Your task to perform on an android device: turn pop-ups off in chrome Image 0: 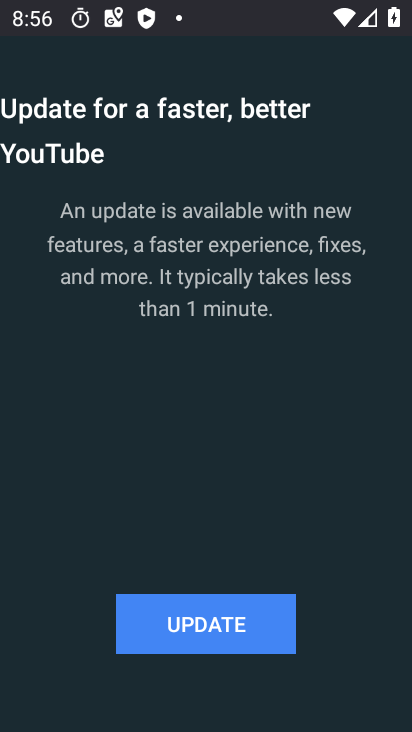
Step 0: press home button
Your task to perform on an android device: turn pop-ups off in chrome Image 1: 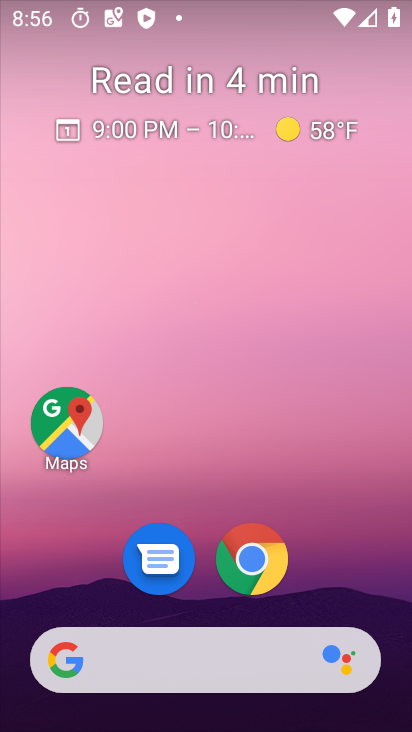
Step 1: click (251, 555)
Your task to perform on an android device: turn pop-ups off in chrome Image 2: 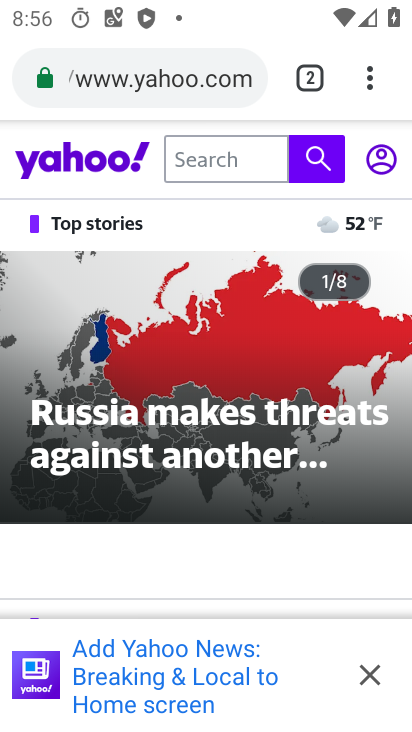
Step 2: click (371, 81)
Your task to perform on an android device: turn pop-ups off in chrome Image 3: 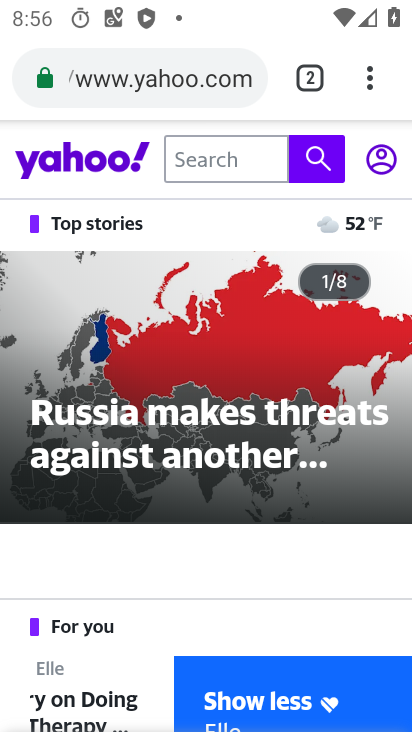
Step 3: click (368, 75)
Your task to perform on an android device: turn pop-ups off in chrome Image 4: 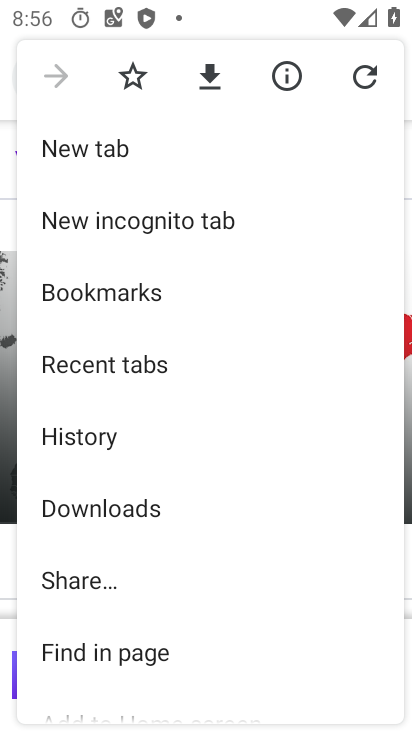
Step 4: drag from (159, 541) to (196, 445)
Your task to perform on an android device: turn pop-ups off in chrome Image 5: 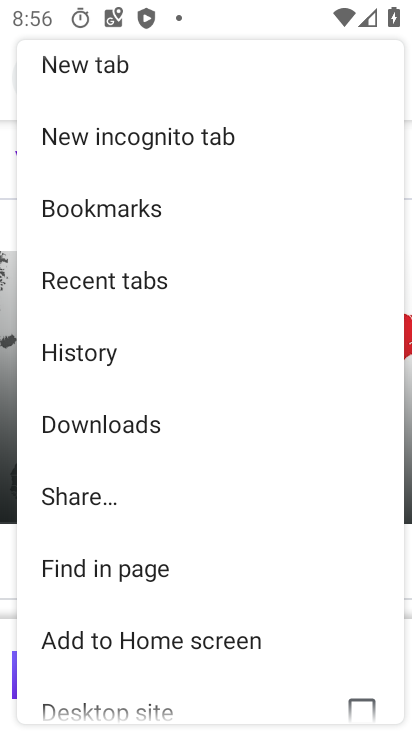
Step 5: drag from (158, 535) to (197, 429)
Your task to perform on an android device: turn pop-ups off in chrome Image 6: 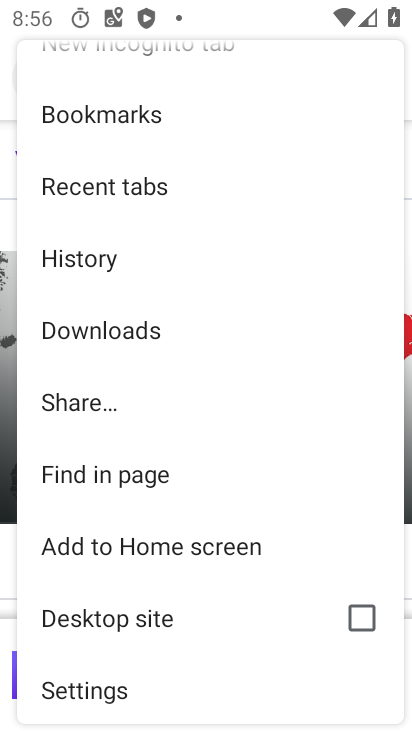
Step 6: drag from (156, 569) to (231, 444)
Your task to perform on an android device: turn pop-ups off in chrome Image 7: 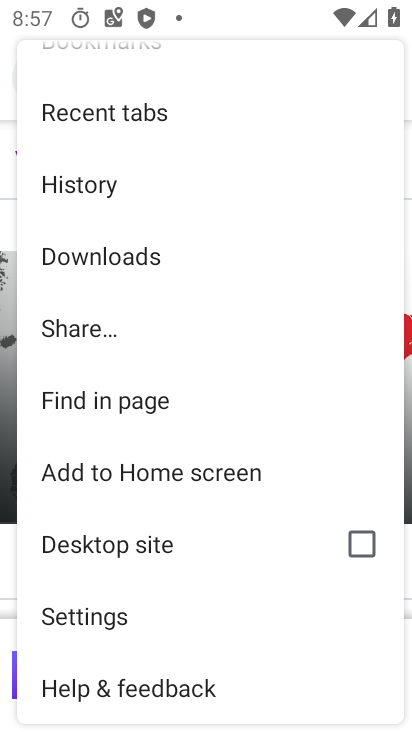
Step 7: click (90, 626)
Your task to perform on an android device: turn pop-ups off in chrome Image 8: 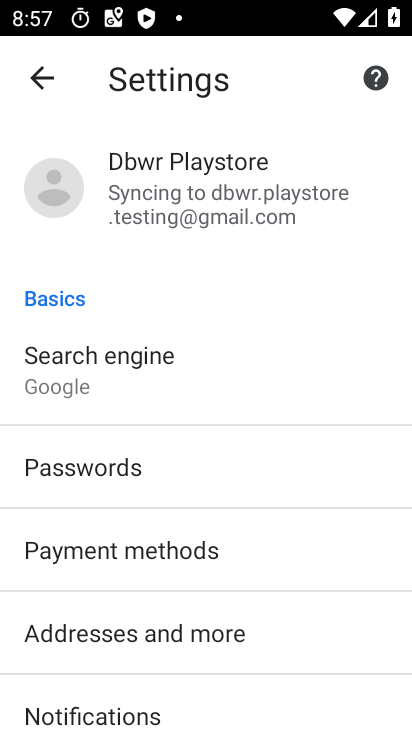
Step 8: drag from (119, 609) to (256, 442)
Your task to perform on an android device: turn pop-ups off in chrome Image 9: 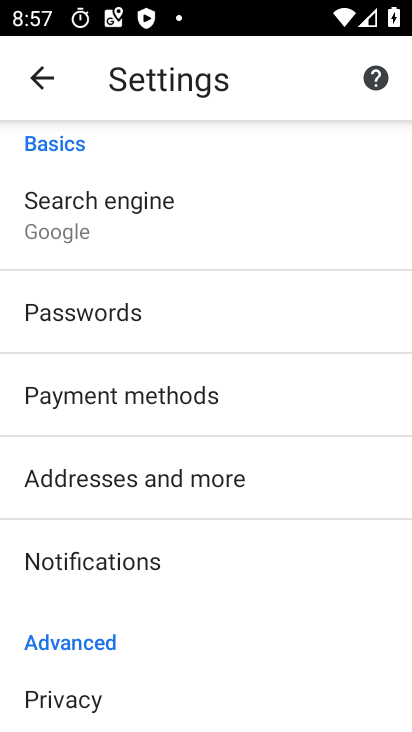
Step 9: drag from (159, 594) to (271, 436)
Your task to perform on an android device: turn pop-ups off in chrome Image 10: 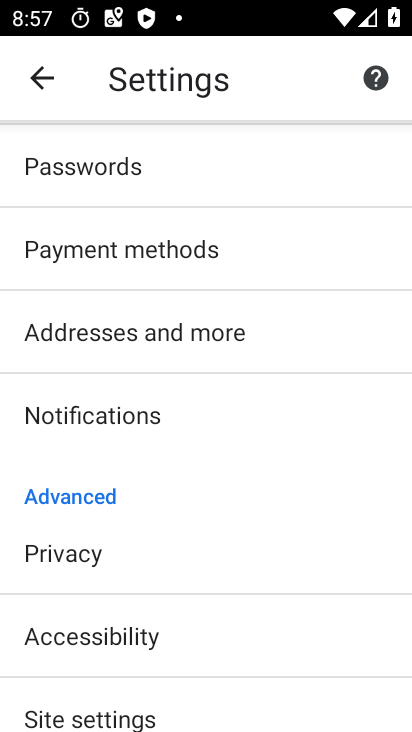
Step 10: drag from (182, 569) to (270, 452)
Your task to perform on an android device: turn pop-ups off in chrome Image 11: 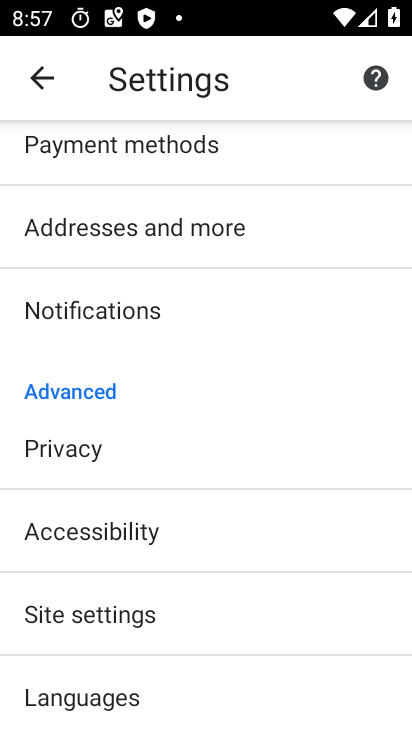
Step 11: drag from (145, 592) to (256, 471)
Your task to perform on an android device: turn pop-ups off in chrome Image 12: 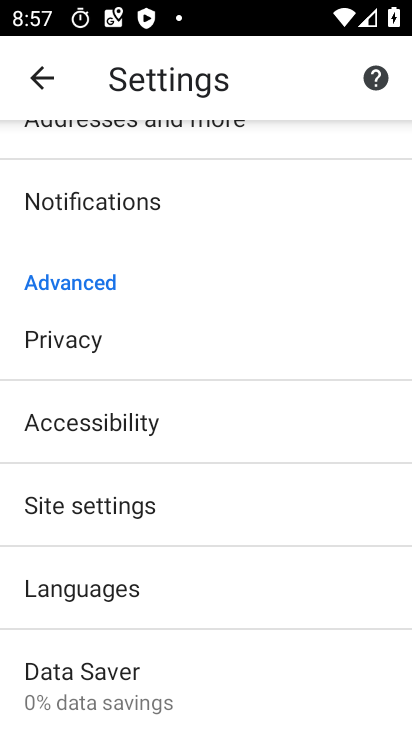
Step 12: click (138, 503)
Your task to perform on an android device: turn pop-ups off in chrome Image 13: 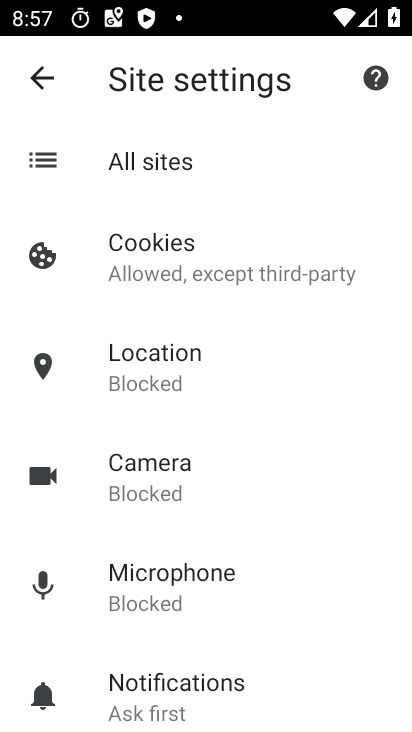
Step 13: drag from (167, 622) to (205, 479)
Your task to perform on an android device: turn pop-ups off in chrome Image 14: 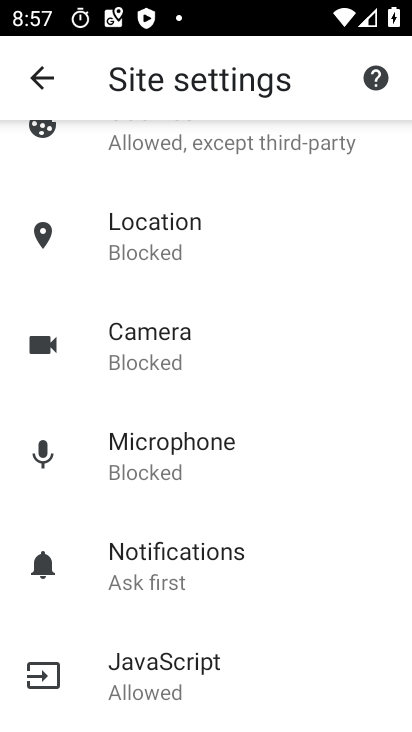
Step 14: drag from (163, 599) to (255, 479)
Your task to perform on an android device: turn pop-ups off in chrome Image 15: 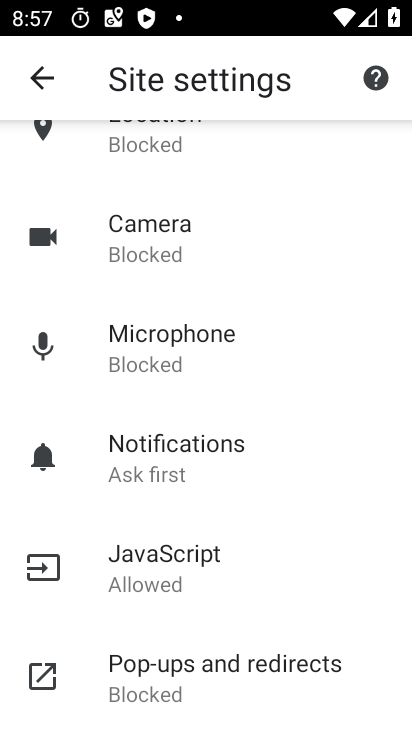
Step 15: drag from (158, 614) to (265, 483)
Your task to perform on an android device: turn pop-ups off in chrome Image 16: 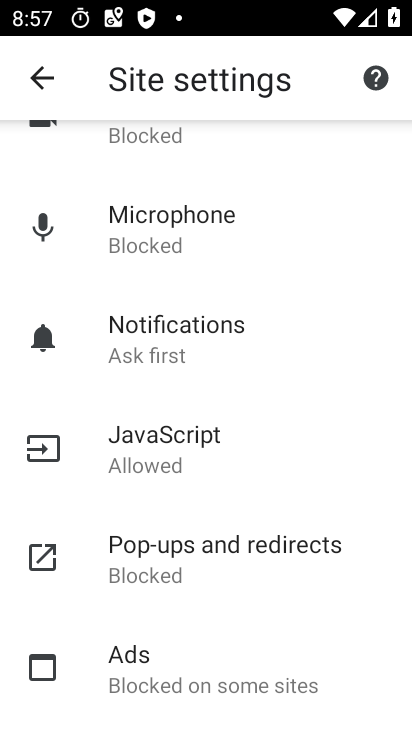
Step 16: click (254, 521)
Your task to perform on an android device: turn pop-ups off in chrome Image 17: 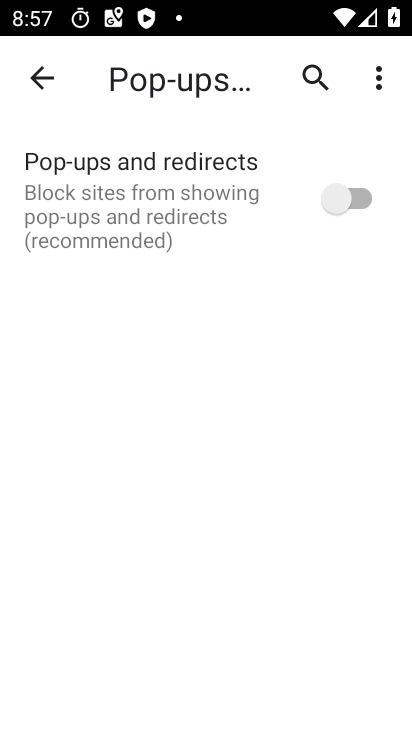
Step 17: task complete